Your task to perform on an android device: Go to Yahoo.com Image 0: 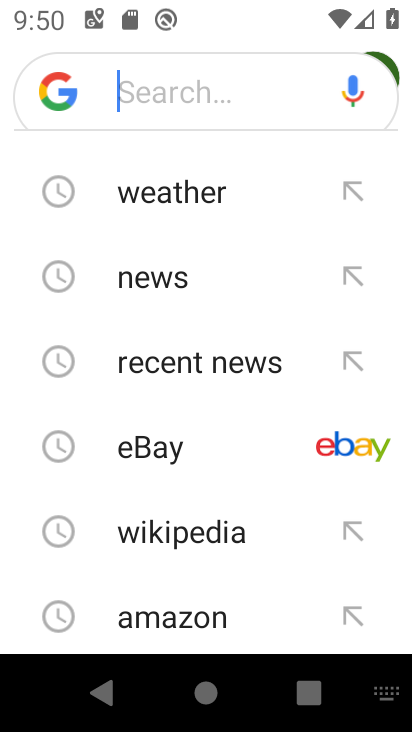
Step 0: press home button
Your task to perform on an android device: Go to Yahoo.com Image 1: 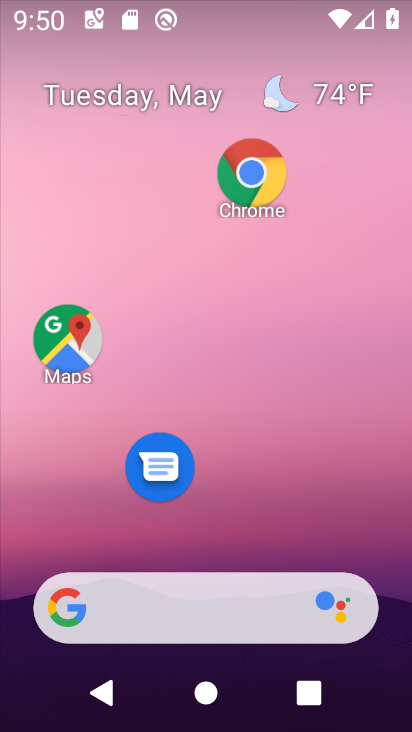
Step 1: drag from (350, 495) to (363, 87)
Your task to perform on an android device: Go to Yahoo.com Image 2: 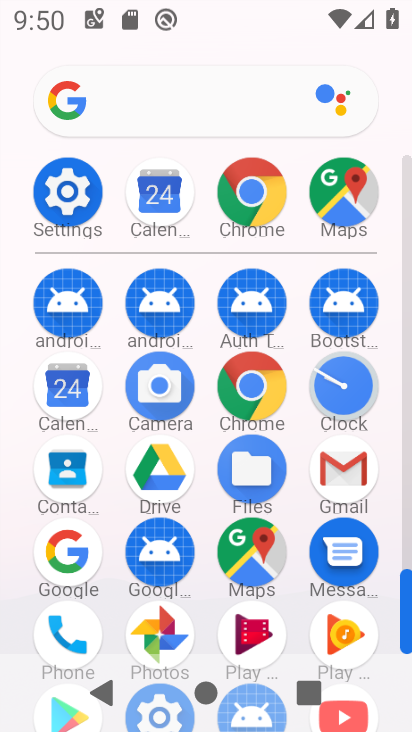
Step 2: click (254, 379)
Your task to perform on an android device: Go to Yahoo.com Image 3: 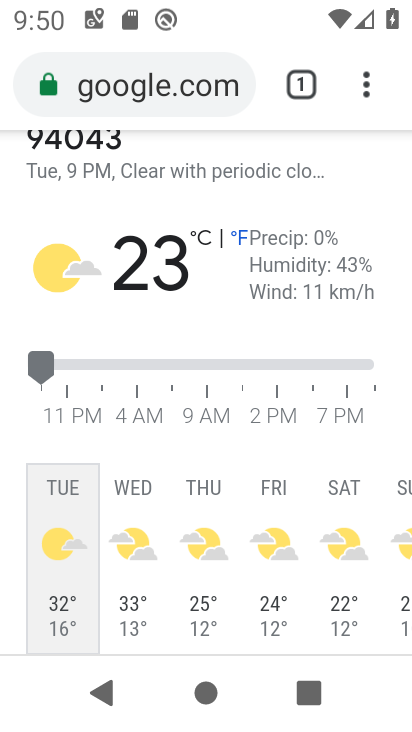
Step 3: click (193, 96)
Your task to perform on an android device: Go to Yahoo.com Image 4: 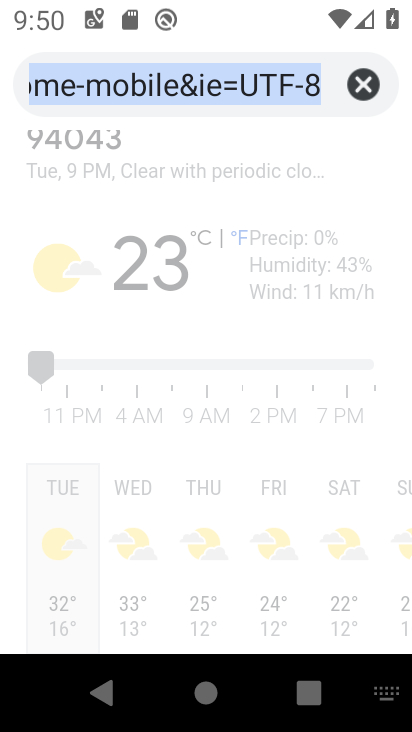
Step 4: click (370, 82)
Your task to perform on an android device: Go to Yahoo.com Image 5: 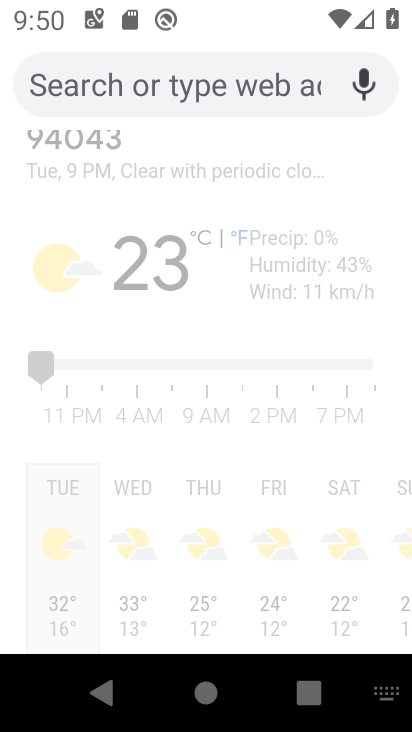
Step 5: type "yahoo.com"
Your task to perform on an android device: Go to Yahoo.com Image 6: 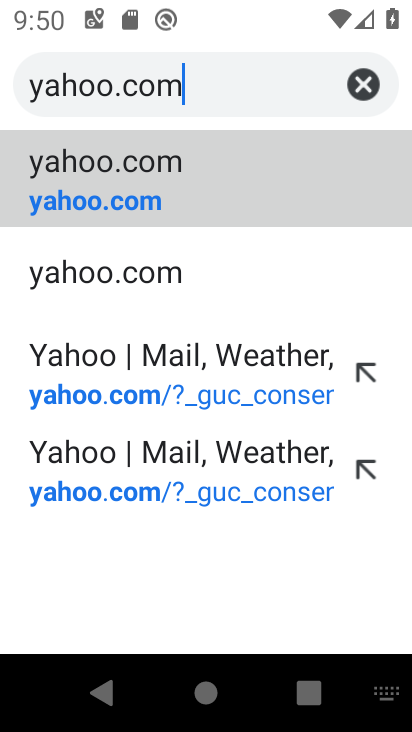
Step 6: click (154, 186)
Your task to perform on an android device: Go to Yahoo.com Image 7: 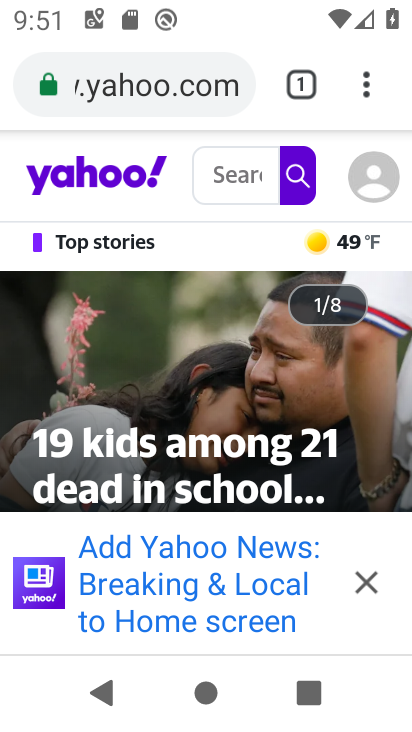
Step 7: task complete